Your task to perform on an android device: Open eBay Image 0: 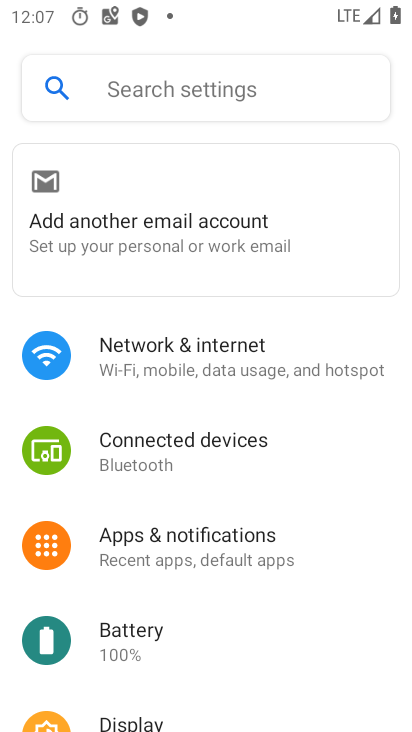
Step 0: press back button
Your task to perform on an android device: Open eBay Image 1: 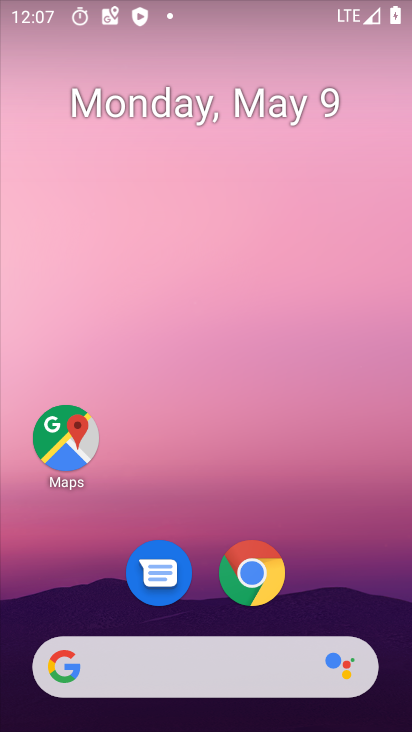
Step 1: drag from (350, 573) to (286, 5)
Your task to perform on an android device: Open eBay Image 2: 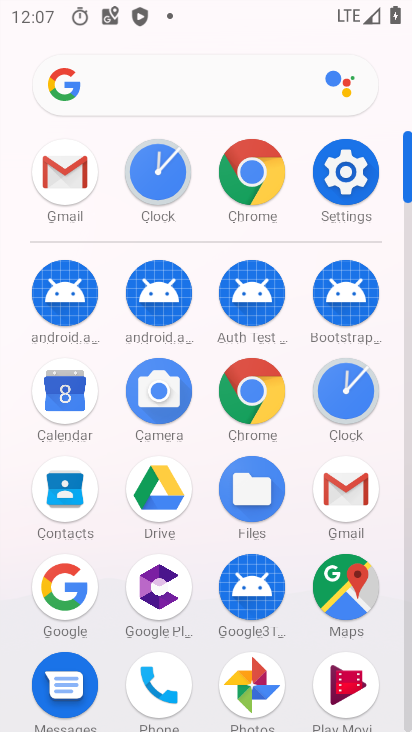
Step 2: click (252, 181)
Your task to perform on an android device: Open eBay Image 3: 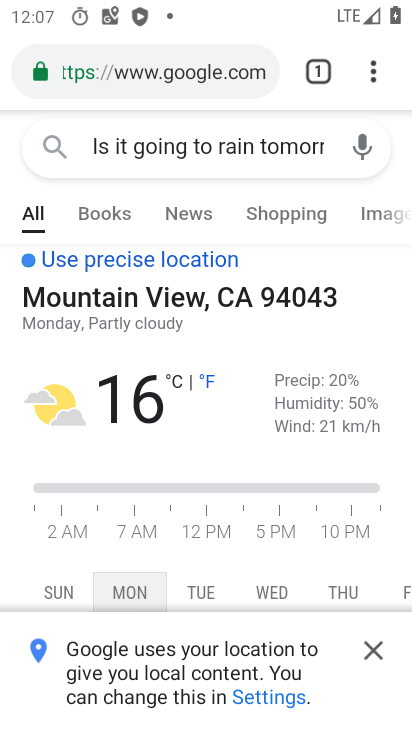
Step 3: click (205, 66)
Your task to perform on an android device: Open eBay Image 4: 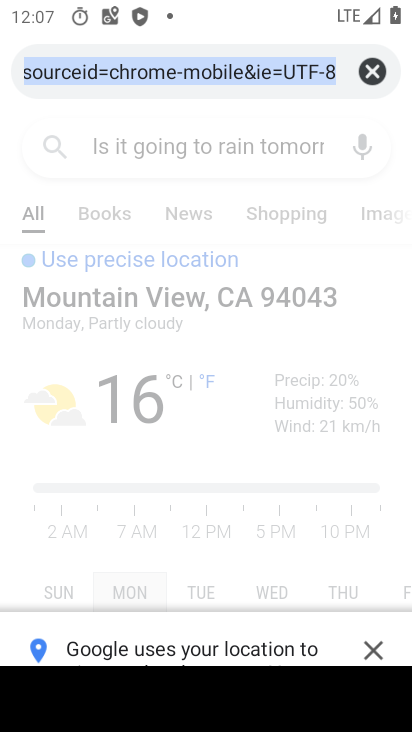
Step 4: click (365, 73)
Your task to perform on an android device: Open eBay Image 5: 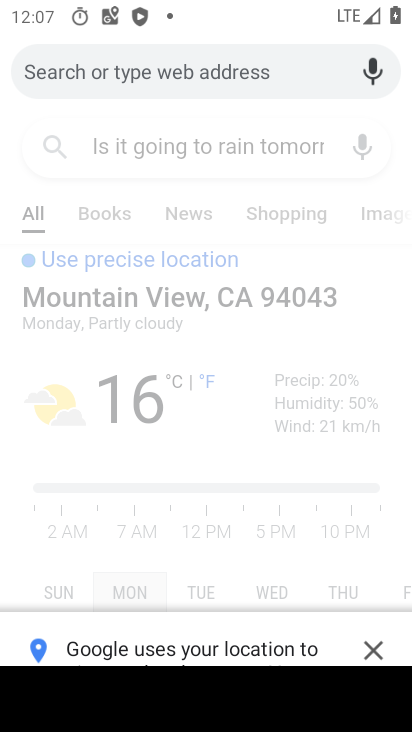
Step 5: type "eBay"
Your task to perform on an android device: Open eBay Image 6: 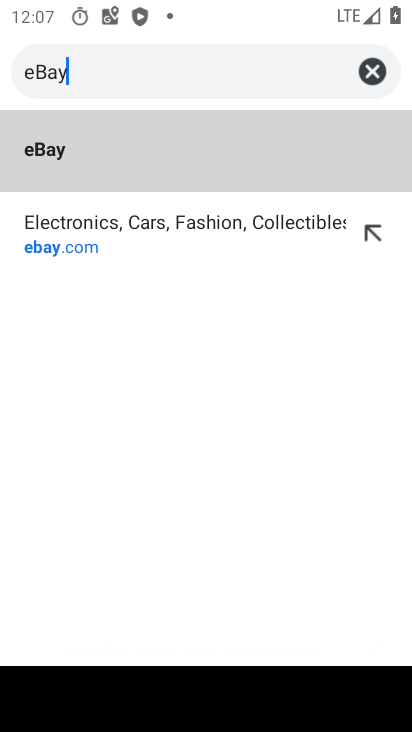
Step 6: type ""
Your task to perform on an android device: Open eBay Image 7: 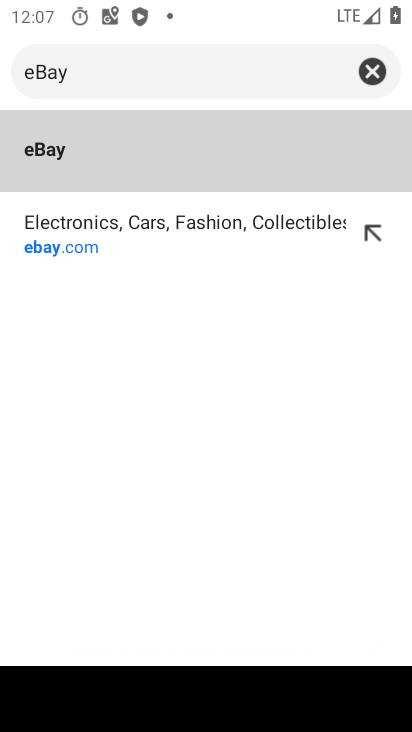
Step 7: click (96, 224)
Your task to perform on an android device: Open eBay Image 8: 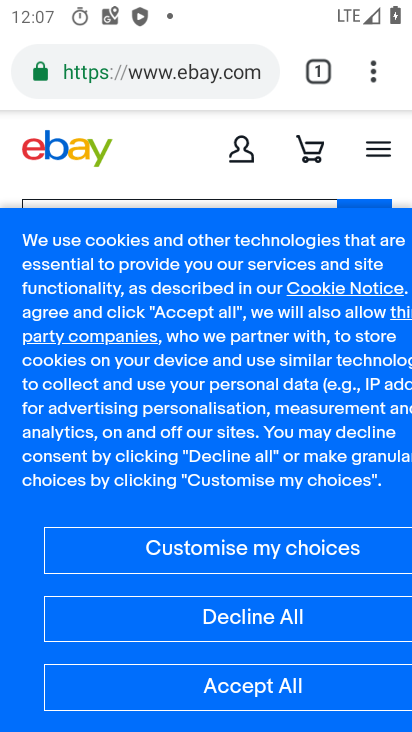
Step 8: click (292, 686)
Your task to perform on an android device: Open eBay Image 9: 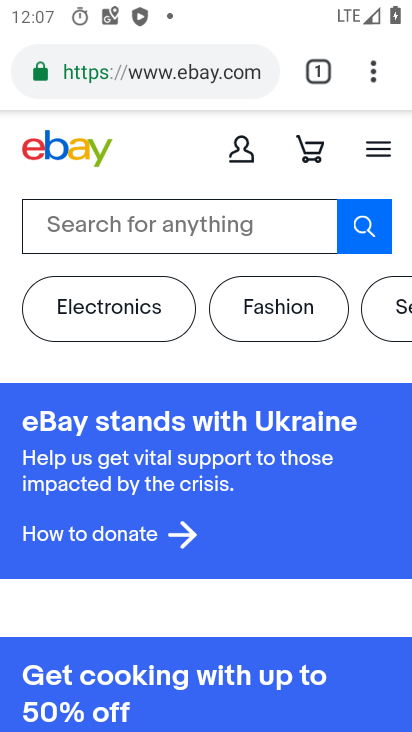
Step 9: task complete